Your task to perform on an android device: Open Google Maps and go to "Timeline" Image 0: 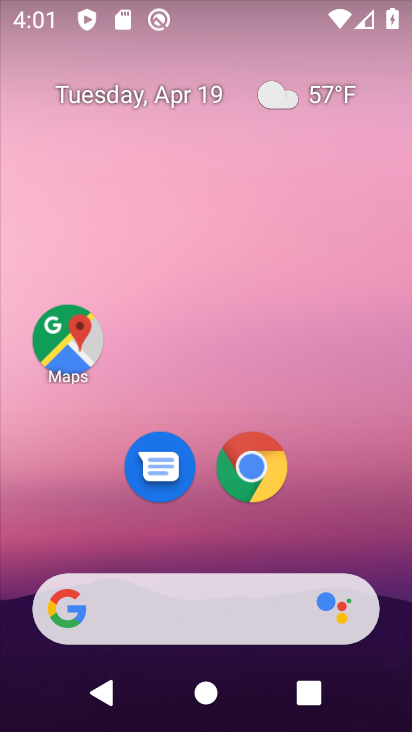
Step 0: drag from (291, 157) to (296, 105)
Your task to perform on an android device: Open Google Maps and go to "Timeline" Image 1: 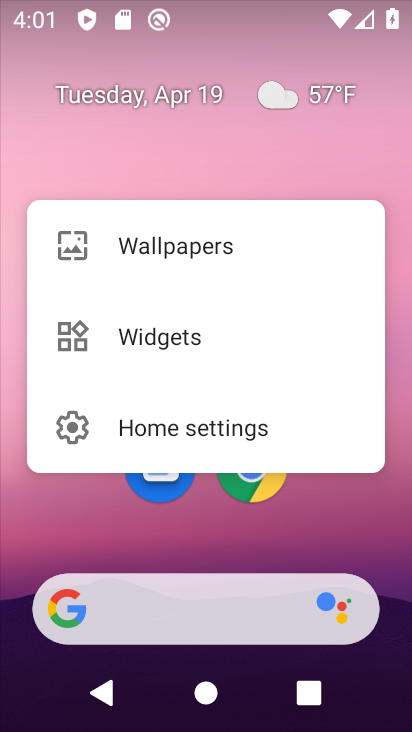
Step 1: click (328, 162)
Your task to perform on an android device: Open Google Maps and go to "Timeline" Image 2: 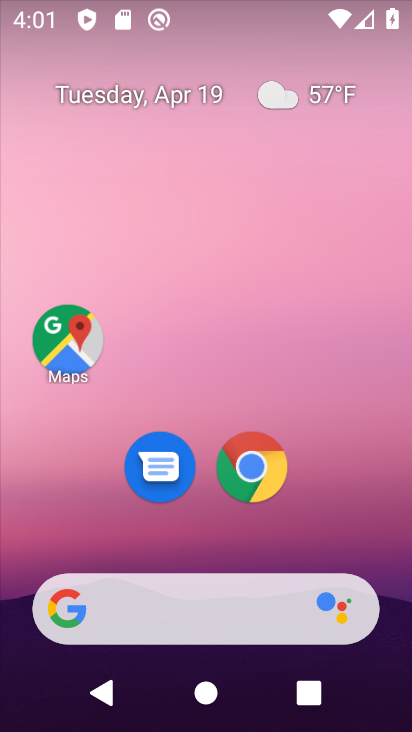
Step 2: drag from (194, 620) to (187, 262)
Your task to perform on an android device: Open Google Maps and go to "Timeline" Image 3: 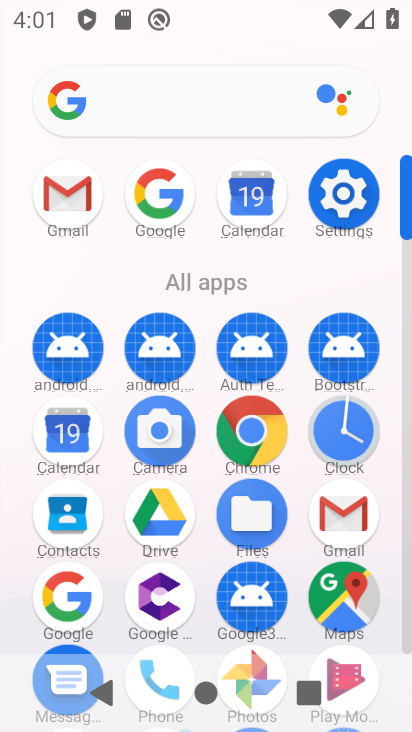
Step 3: click (355, 601)
Your task to perform on an android device: Open Google Maps and go to "Timeline" Image 4: 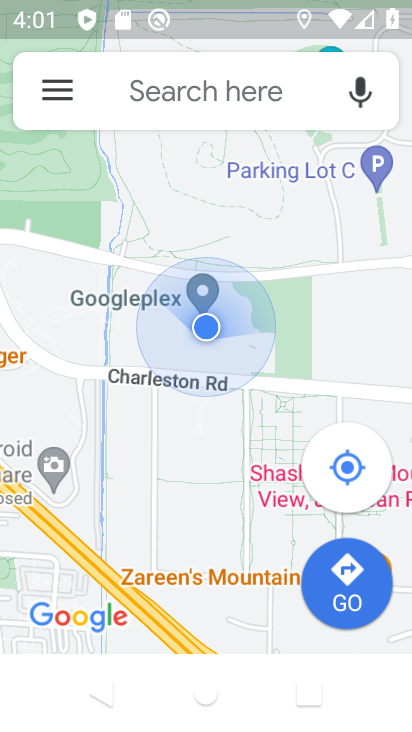
Step 4: click (68, 84)
Your task to perform on an android device: Open Google Maps and go to "Timeline" Image 5: 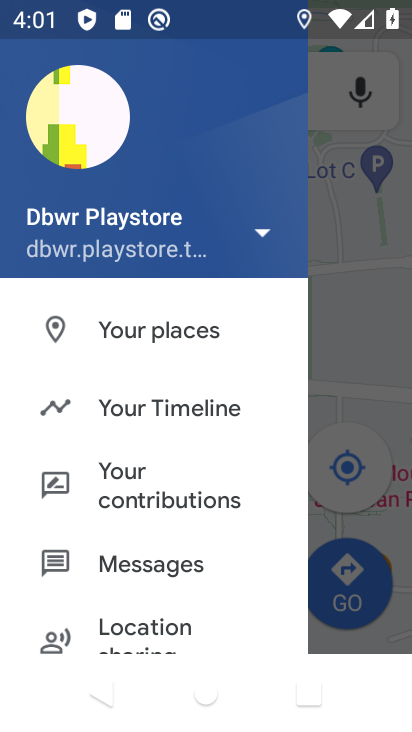
Step 5: click (149, 402)
Your task to perform on an android device: Open Google Maps and go to "Timeline" Image 6: 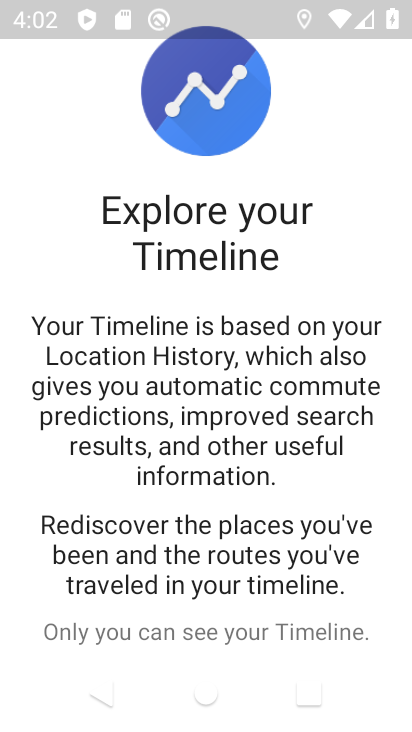
Step 6: drag from (256, 471) to (356, 116)
Your task to perform on an android device: Open Google Maps and go to "Timeline" Image 7: 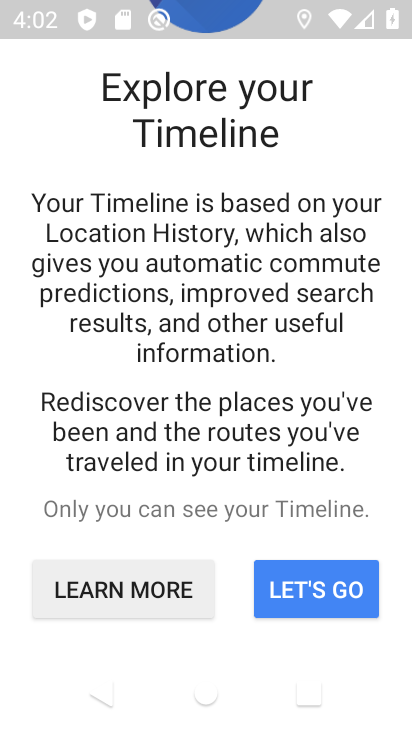
Step 7: click (304, 599)
Your task to perform on an android device: Open Google Maps and go to "Timeline" Image 8: 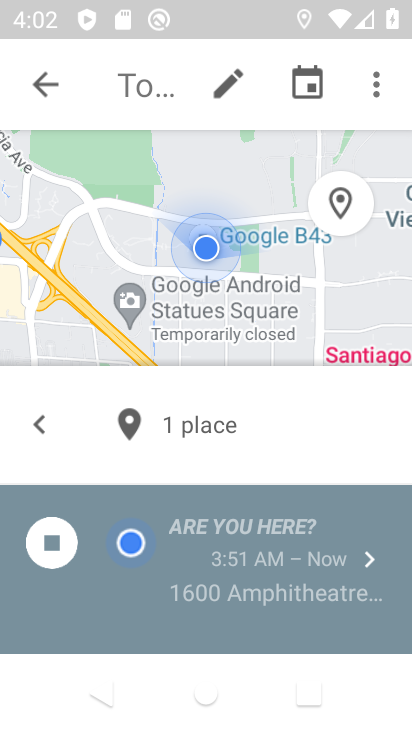
Step 8: task complete